Your task to perform on an android device: Toggle the flashlight Image 0: 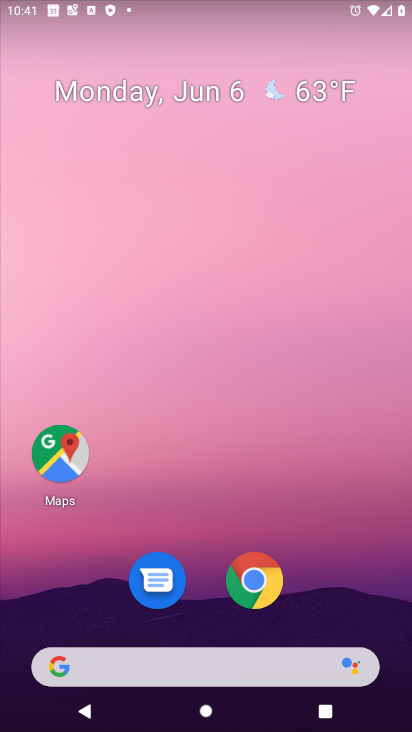
Step 0: drag from (376, 512) to (311, 0)
Your task to perform on an android device: Toggle the flashlight Image 1: 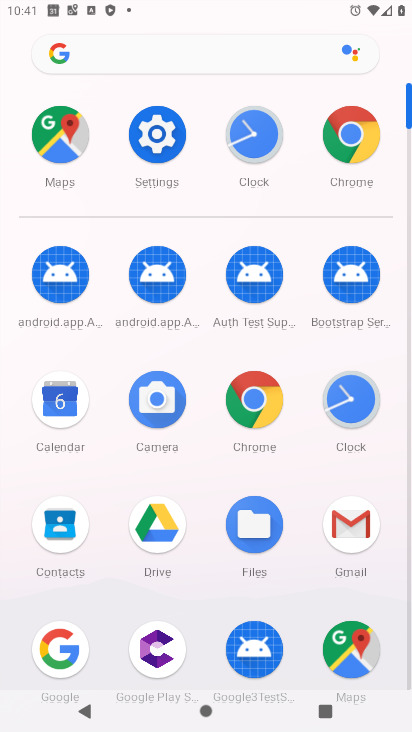
Step 1: click (159, 151)
Your task to perform on an android device: Toggle the flashlight Image 2: 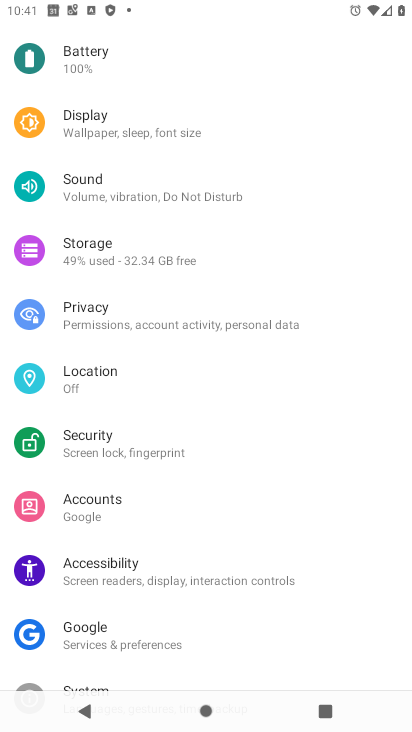
Step 2: task complete